Your task to perform on an android device: change alarm snooze length Image 0: 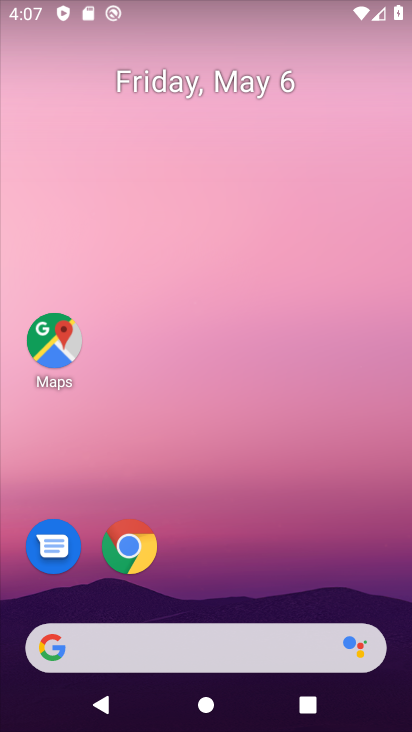
Step 0: drag from (212, 559) to (208, 95)
Your task to perform on an android device: change alarm snooze length Image 1: 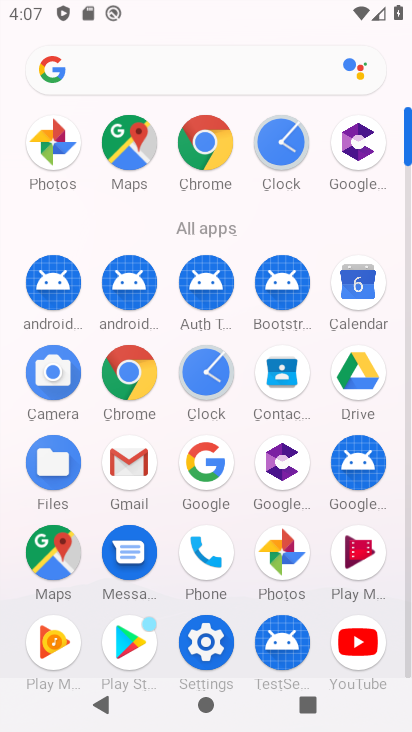
Step 1: click (280, 150)
Your task to perform on an android device: change alarm snooze length Image 2: 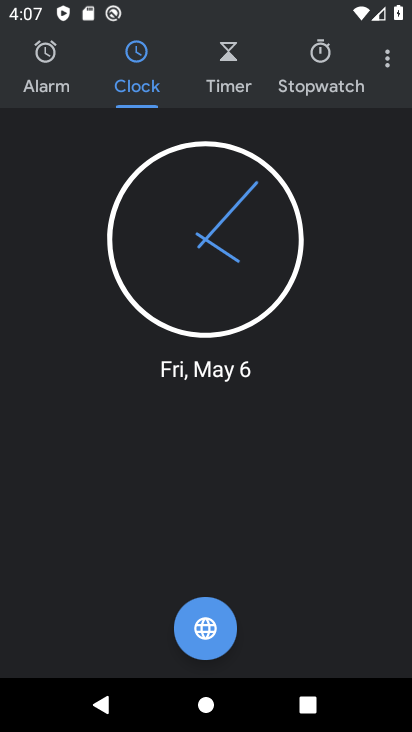
Step 2: click (384, 58)
Your task to perform on an android device: change alarm snooze length Image 3: 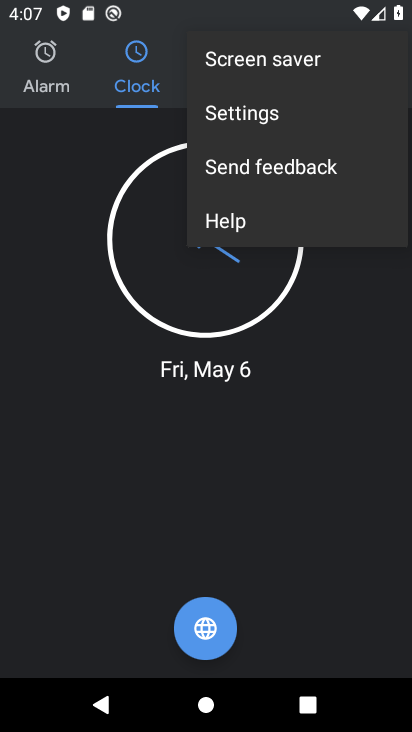
Step 3: click (290, 116)
Your task to perform on an android device: change alarm snooze length Image 4: 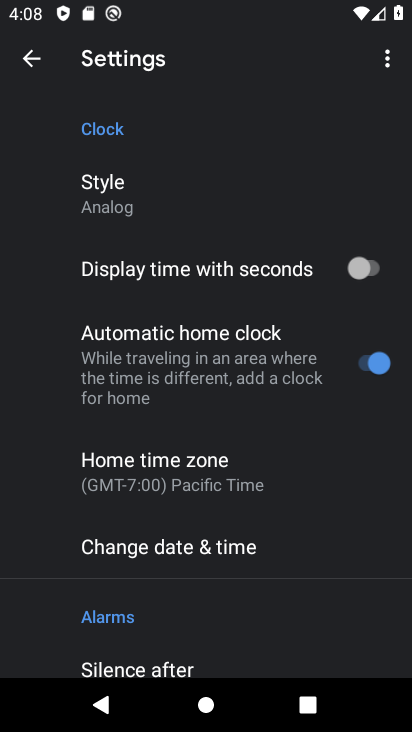
Step 4: drag from (213, 612) to (217, 215)
Your task to perform on an android device: change alarm snooze length Image 5: 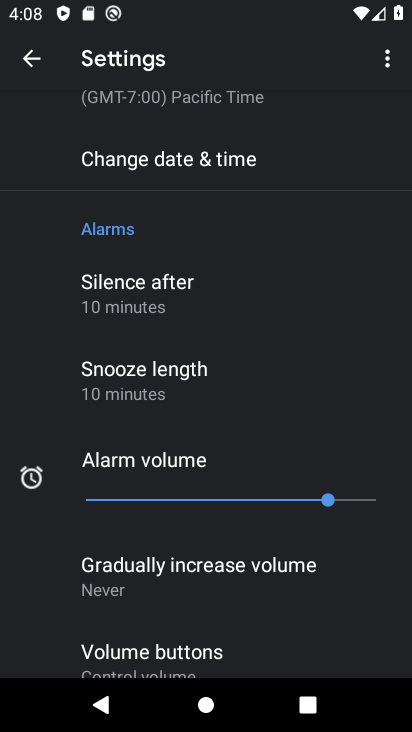
Step 5: drag from (202, 607) to (190, 326)
Your task to perform on an android device: change alarm snooze length Image 6: 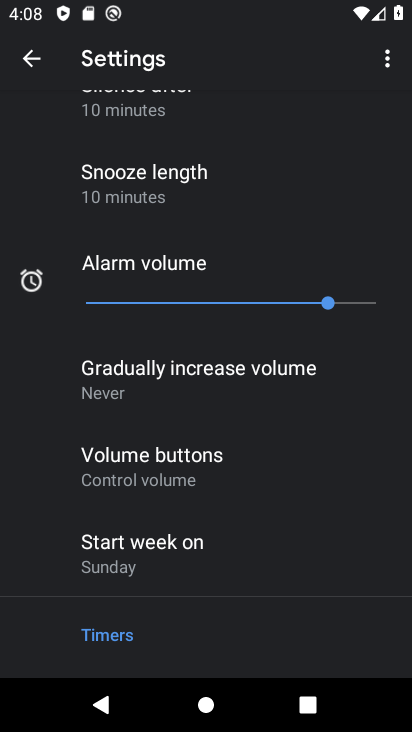
Step 6: click (153, 197)
Your task to perform on an android device: change alarm snooze length Image 7: 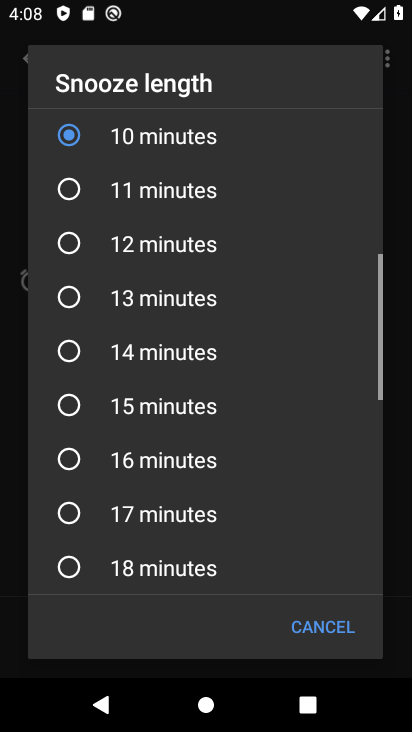
Step 7: click (153, 317)
Your task to perform on an android device: change alarm snooze length Image 8: 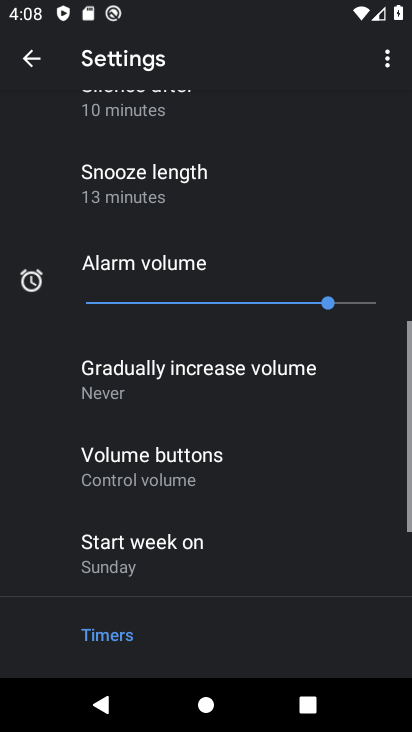
Step 8: task complete